Your task to perform on an android device: Open Google Chrome and click the shortcut for Amazon.com Image 0: 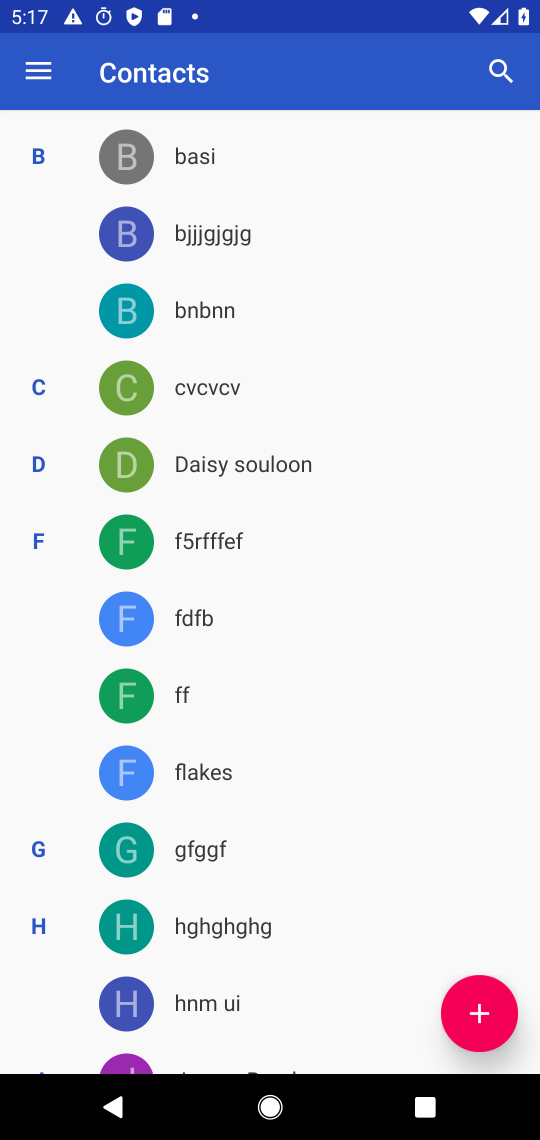
Step 0: press home button
Your task to perform on an android device: Open Google Chrome and click the shortcut for Amazon.com Image 1: 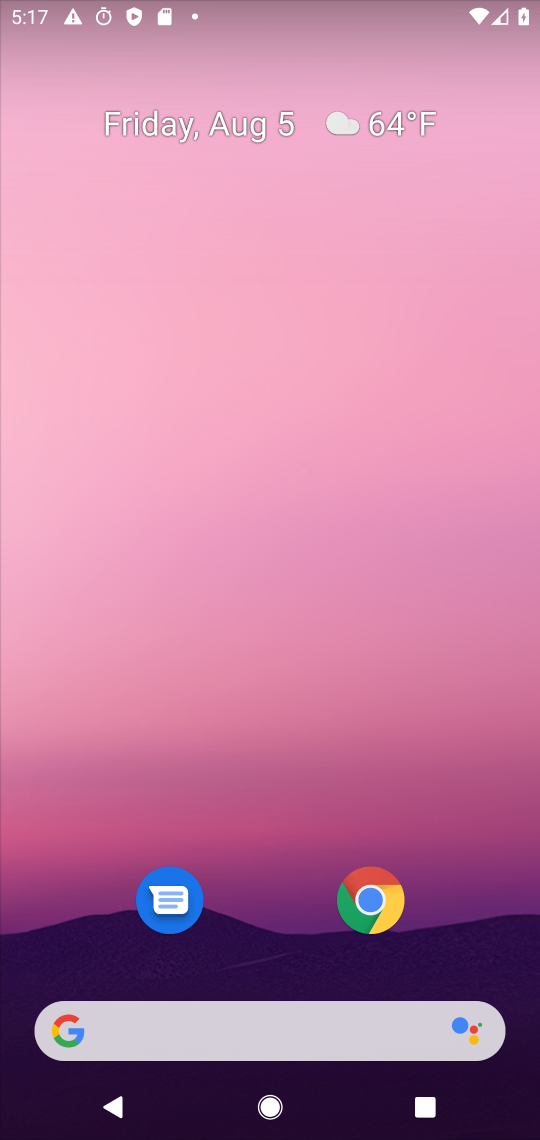
Step 1: click (378, 899)
Your task to perform on an android device: Open Google Chrome and click the shortcut for Amazon.com Image 2: 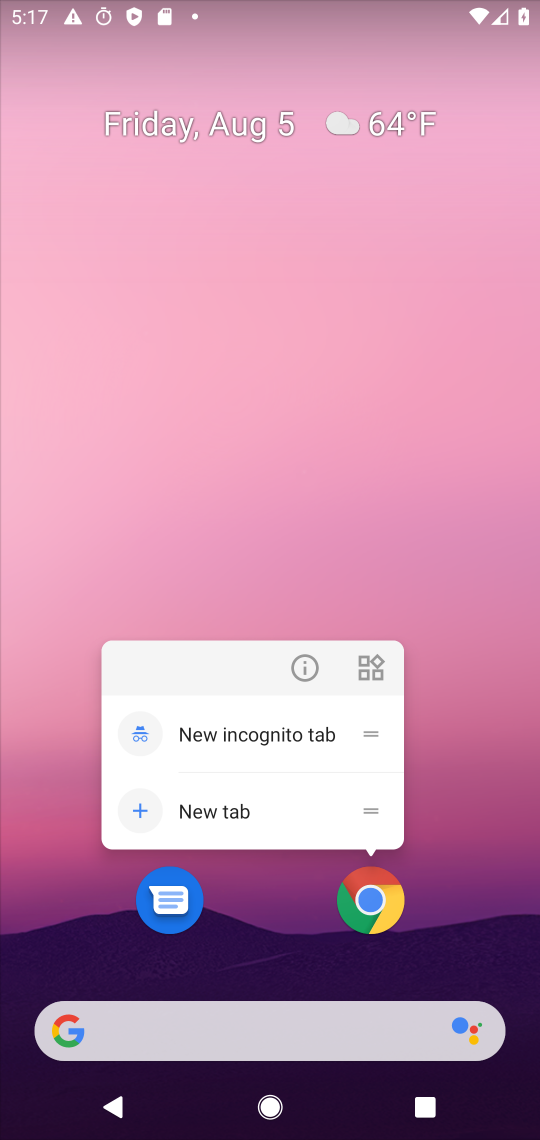
Step 2: click (378, 899)
Your task to perform on an android device: Open Google Chrome and click the shortcut for Amazon.com Image 3: 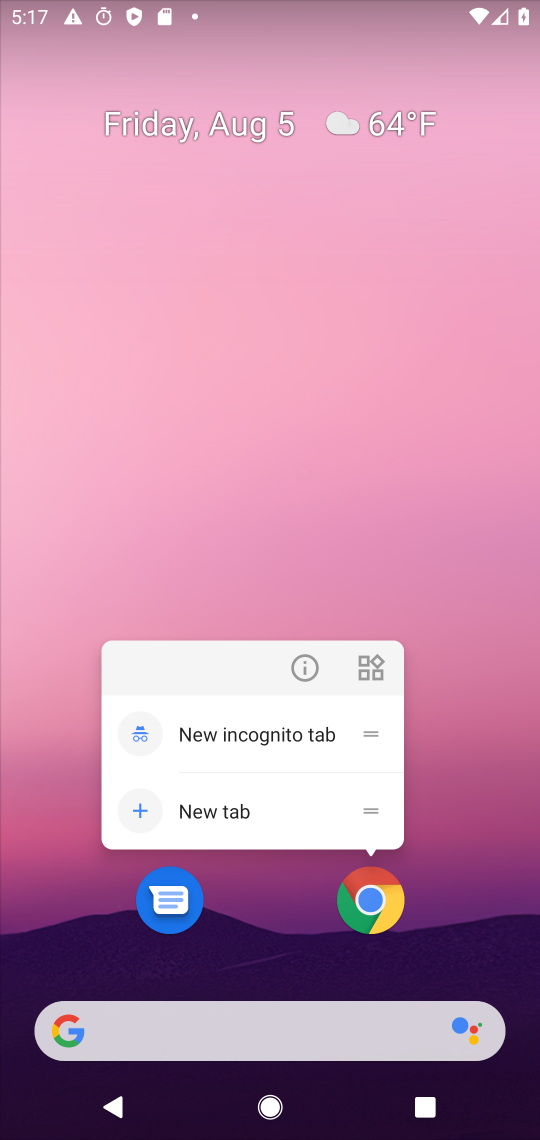
Step 3: click (378, 899)
Your task to perform on an android device: Open Google Chrome and click the shortcut for Amazon.com Image 4: 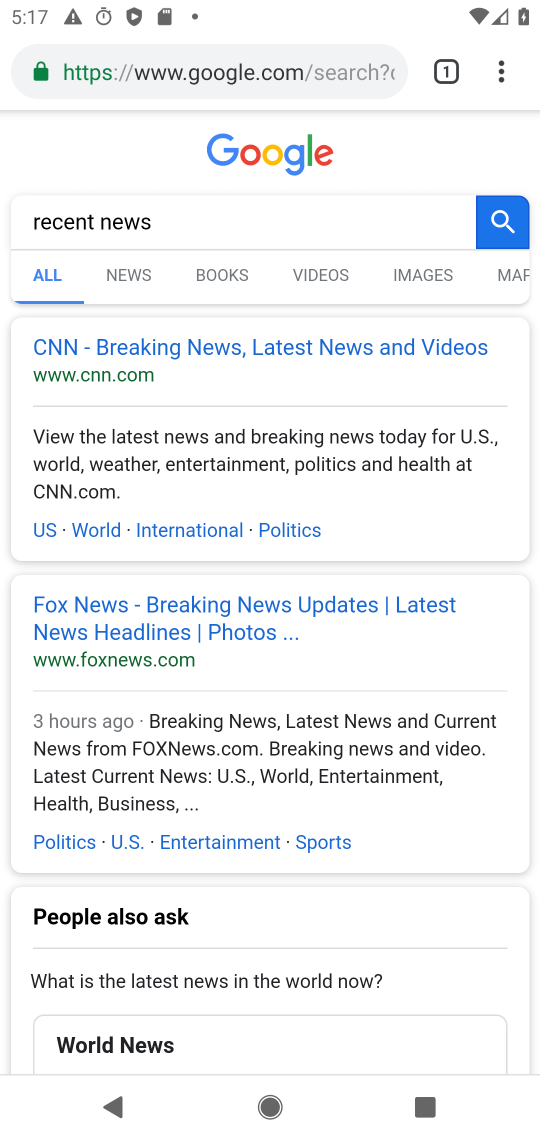
Step 4: drag from (116, 96) to (500, 102)
Your task to perform on an android device: Open Google Chrome and click the shortcut for Amazon.com Image 5: 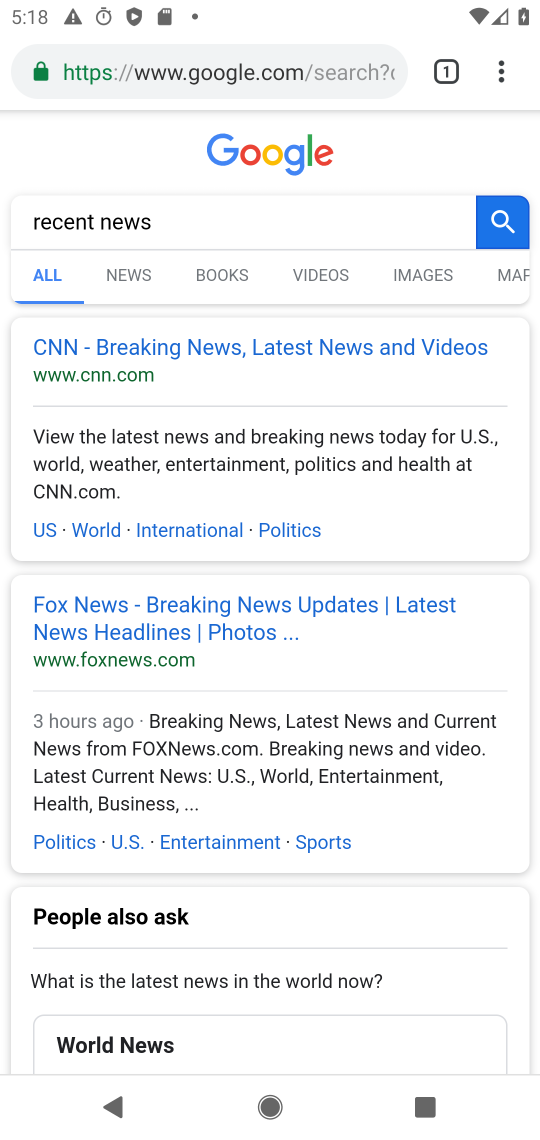
Step 5: click (443, 70)
Your task to perform on an android device: Open Google Chrome and click the shortcut for Amazon.com Image 6: 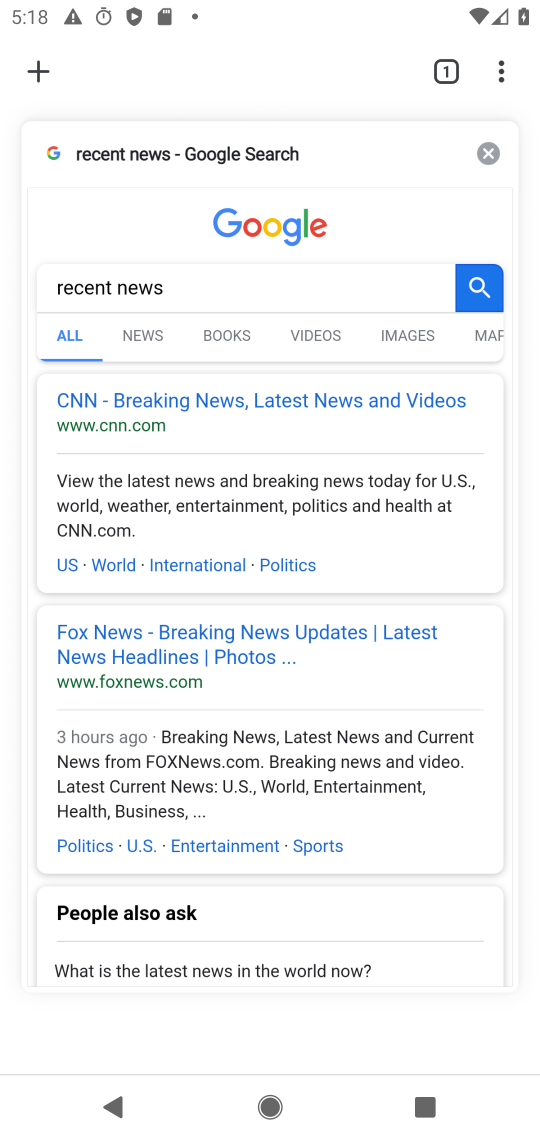
Step 6: click (38, 66)
Your task to perform on an android device: Open Google Chrome and click the shortcut for Amazon.com Image 7: 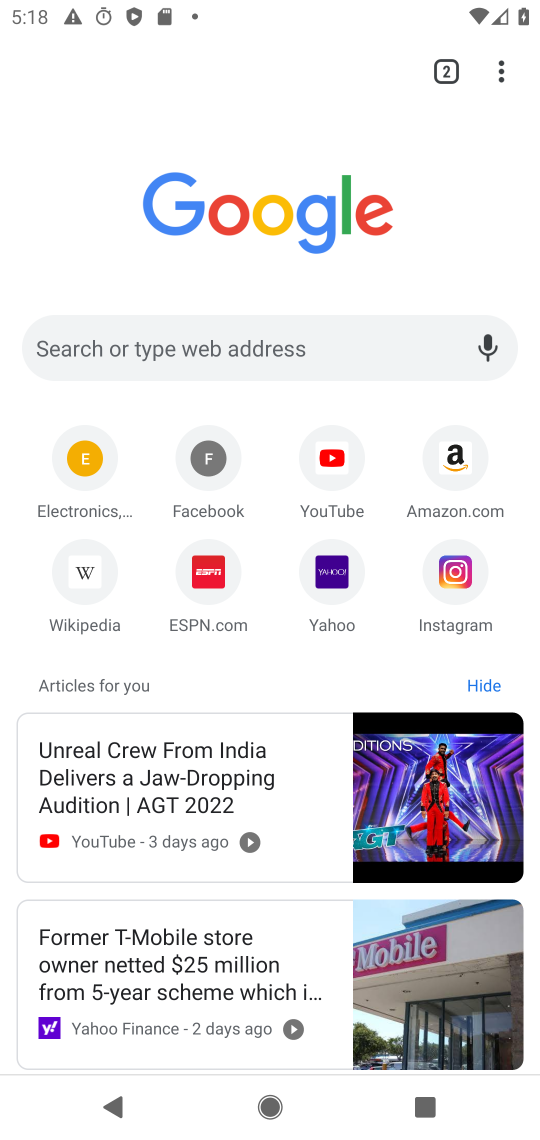
Step 7: click (457, 476)
Your task to perform on an android device: Open Google Chrome and click the shortcut for Amazon.com Image 8: 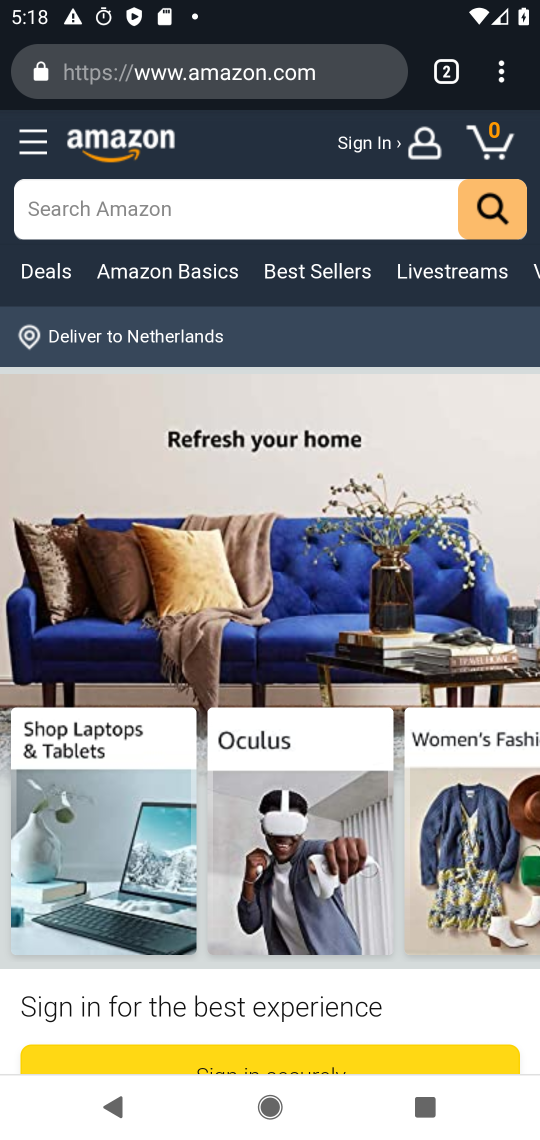
Step 8: task complete